Your task to perform on an android device: What's the weather going to be this weekend? Image 0: 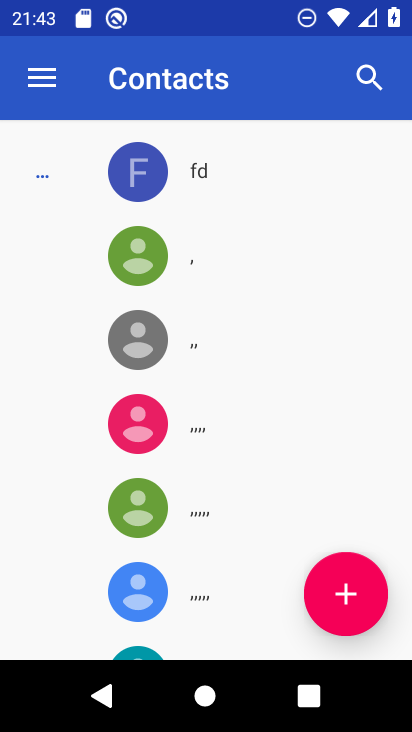
Step 0: press home button
Your task to perform on an android device: What's the weather going to be this weekend? Image 1: 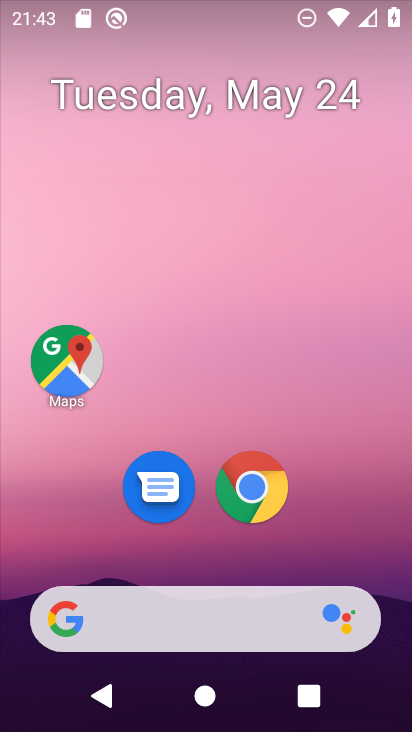
Step 1: click (71, 623)
Your task to perform on an android device: What's the weather going to be this weekend? Image 2: 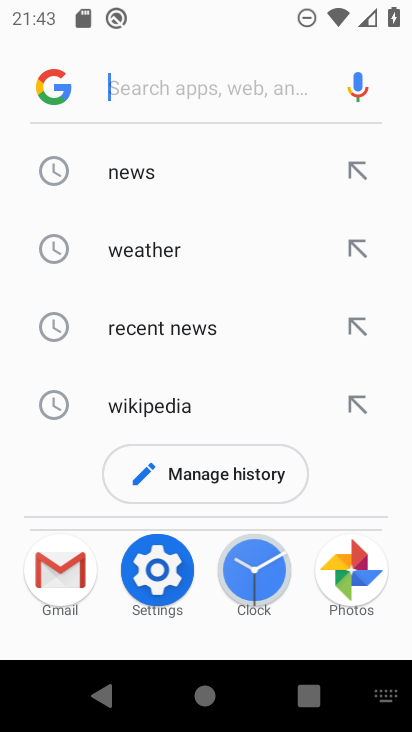
Step 2: click (138, 249)
Your task to perform on an android device: What's the weather going to be this weekend? Image 3: 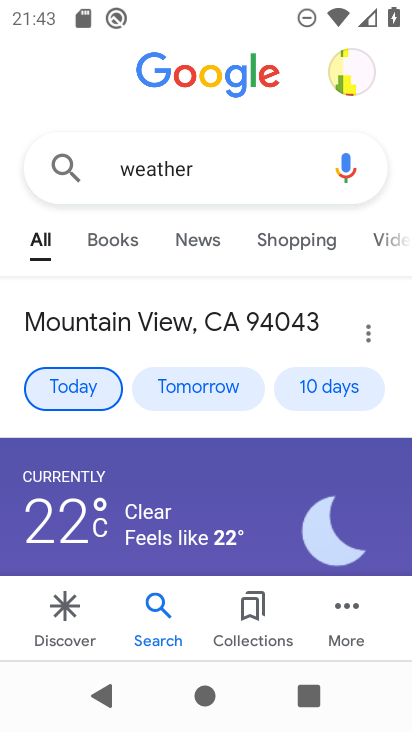
Step 3: click (342, 391)
Your task to perform on an android device: What's the weather going to be this weekend? Image 4: 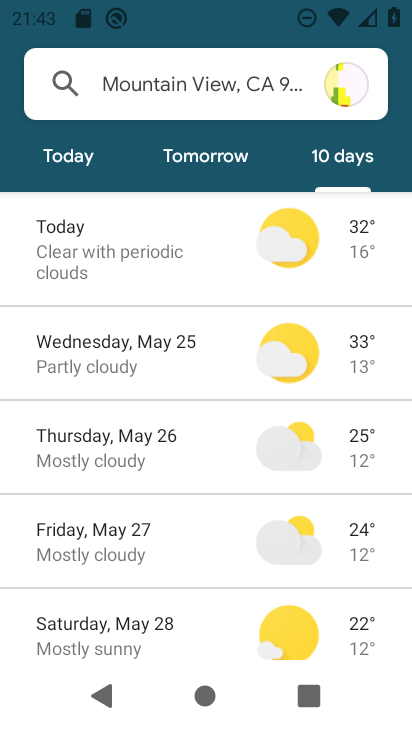
Step 4: drag from (329, 597) to (311, 371)
Your task to perform on an android device: What's the weather going to be this weekend? Image 5: 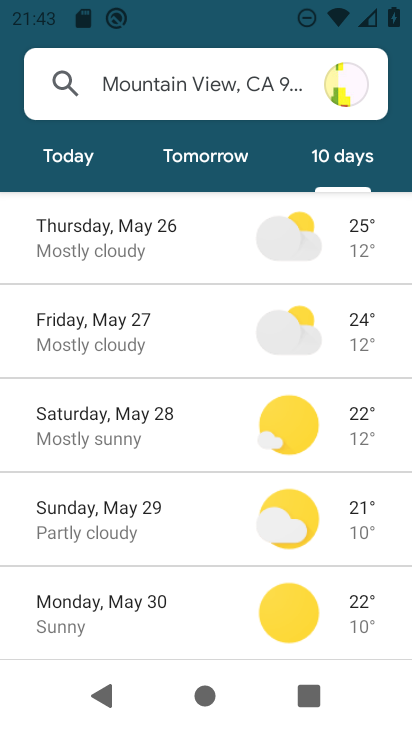
Step 5: click (149, 438)
Your task to perform on an android device: What's the weather going to be this weekend? Image 6: 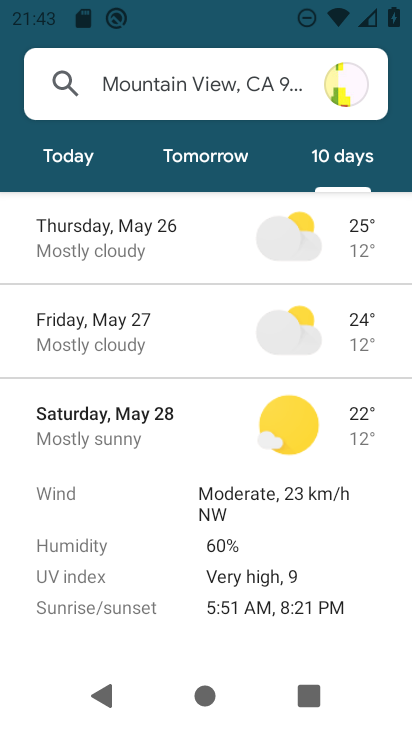
Step 6: task complete